Your task to perform on an android device: Open calendar and show me the first week of next month Image 0: 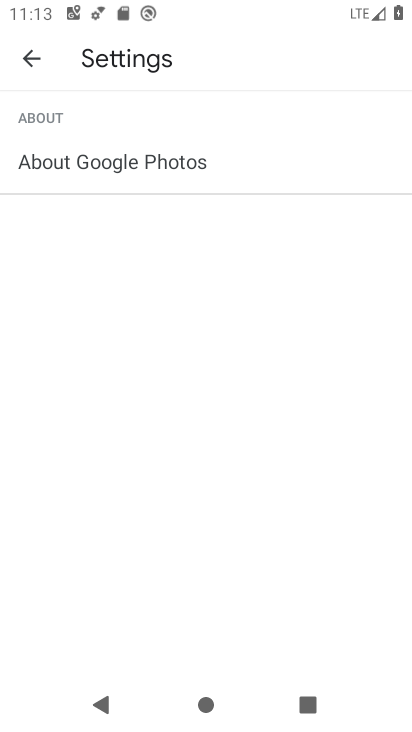
Step 0: press home button
Your task to perform on an android device: Open calendar and show me the first week of next month Image 1: 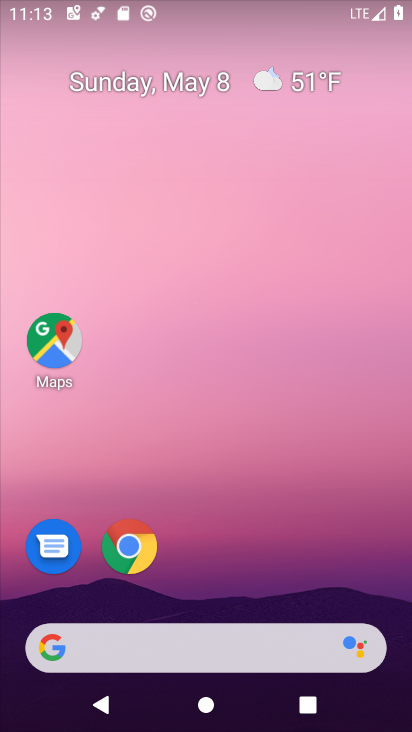
Step 1: drag from (324, 207) to (337, 101)
Your task to perform on an android device: Open calendar and show me the first week of next month Image 2: 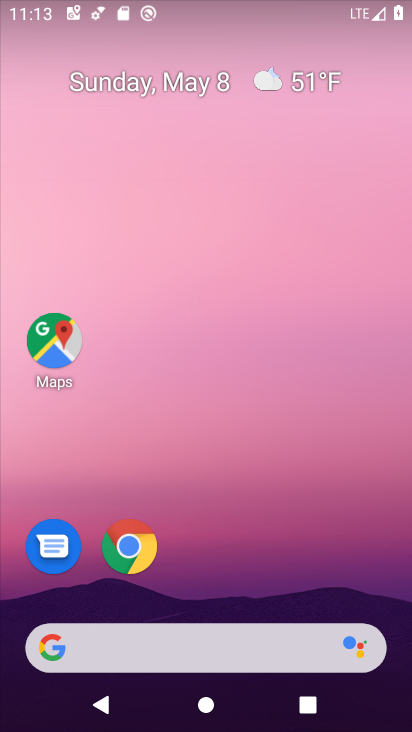
Step 2: drag from (388, 645) to (378, 107)
Your task to perform on an android device: Open calendar and show me the first week of next month Image 3: 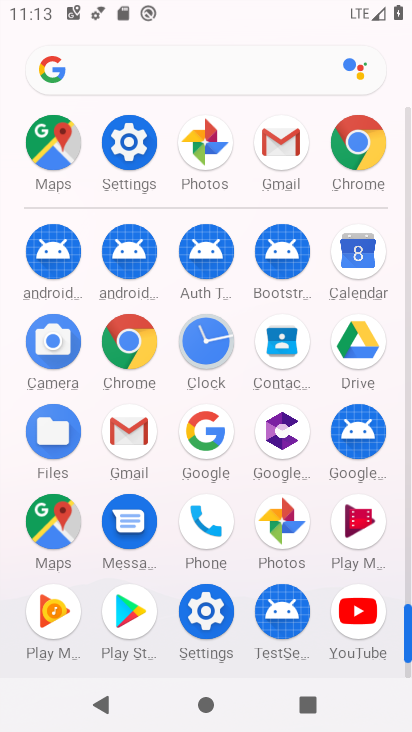
Step 3: click (354, 250)
Your task to perform on an android device: Open calendar and show me the first week of next month Image 4: 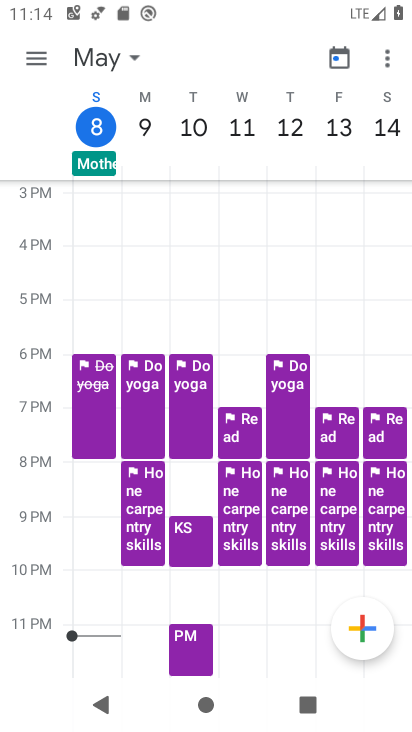
Step 4: click (130, 55)
Your task to perform on an android device: Open calendar and show me the first week of next month Image 5: 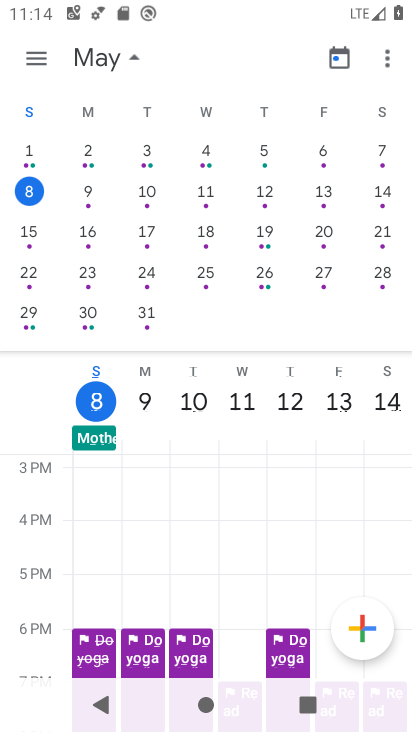
Step 5: drag from (394, 234) to (12, 208)
Your task to perform on an android device: Open calendar and show me the first week of next month Image 6: 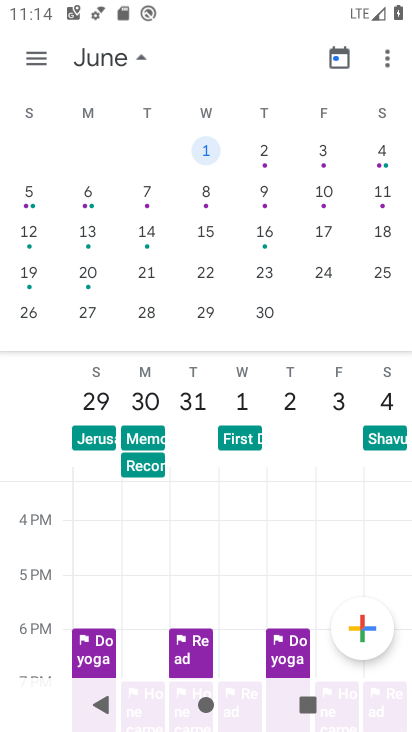
Step 6: click (205, 143)
Your task to perform on an android device: Open calendar and show me the first week of next month Image 7: 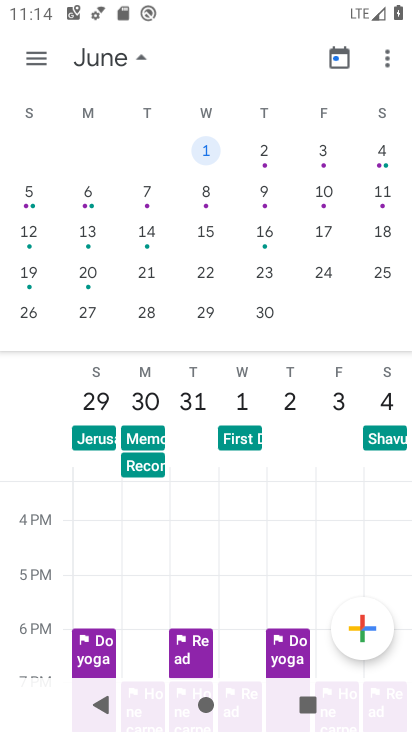
Step 7: click (205, 152)
Your task to perform on an android device: Open calendar and show me the first week of next month Image 8: 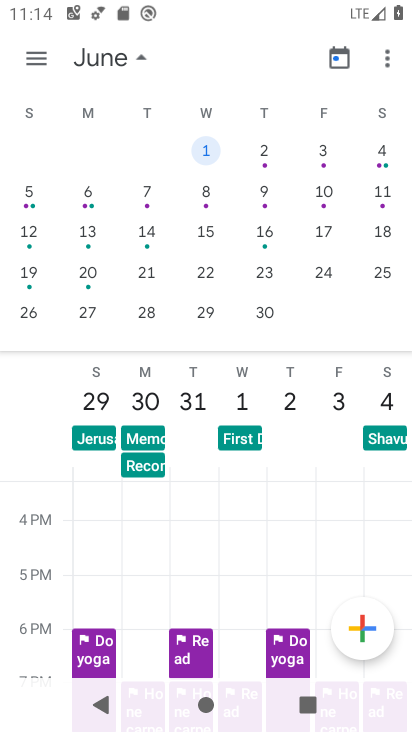
Step 8: task complete